Your task to perform on an android device: What's the weather like in Paris? Image 0: 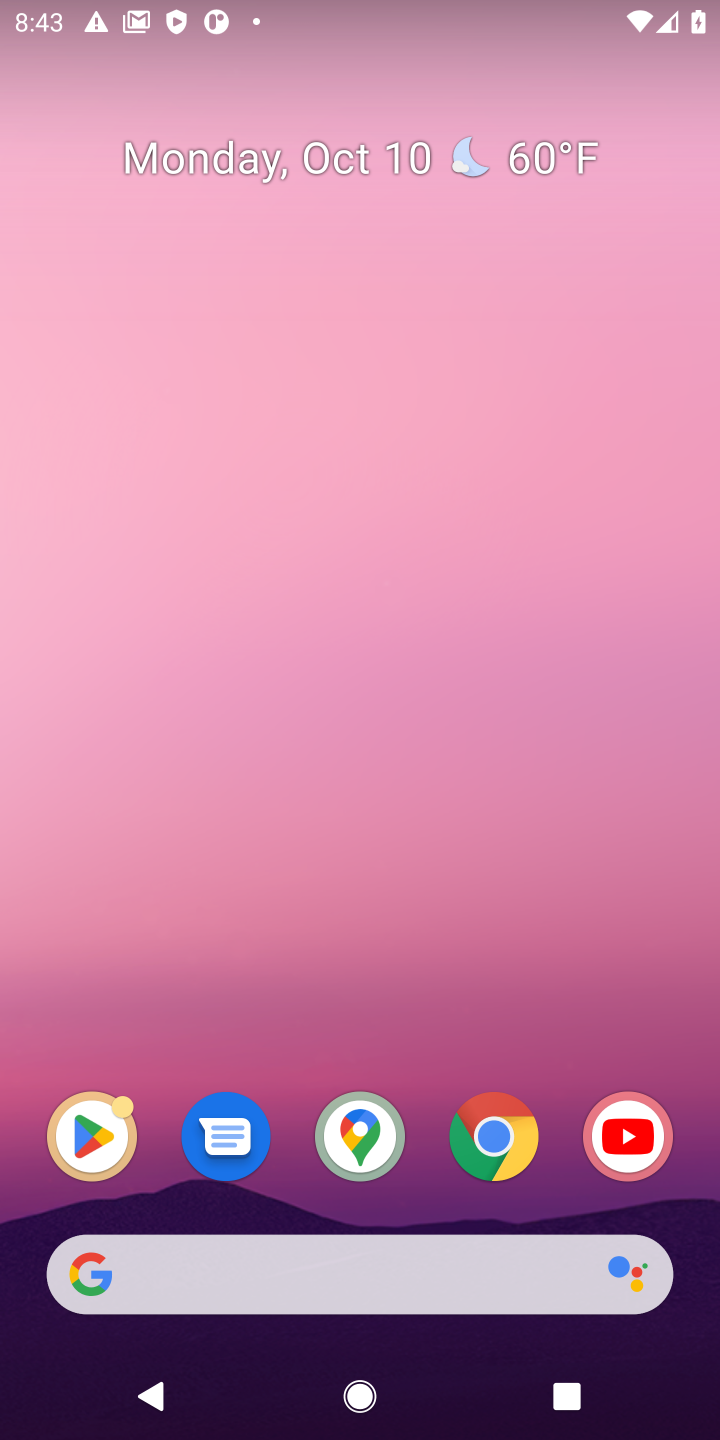
Step 0: click (449, 1273)
Your task to perform on an android device: What's the weather like in Paris? Image 1: 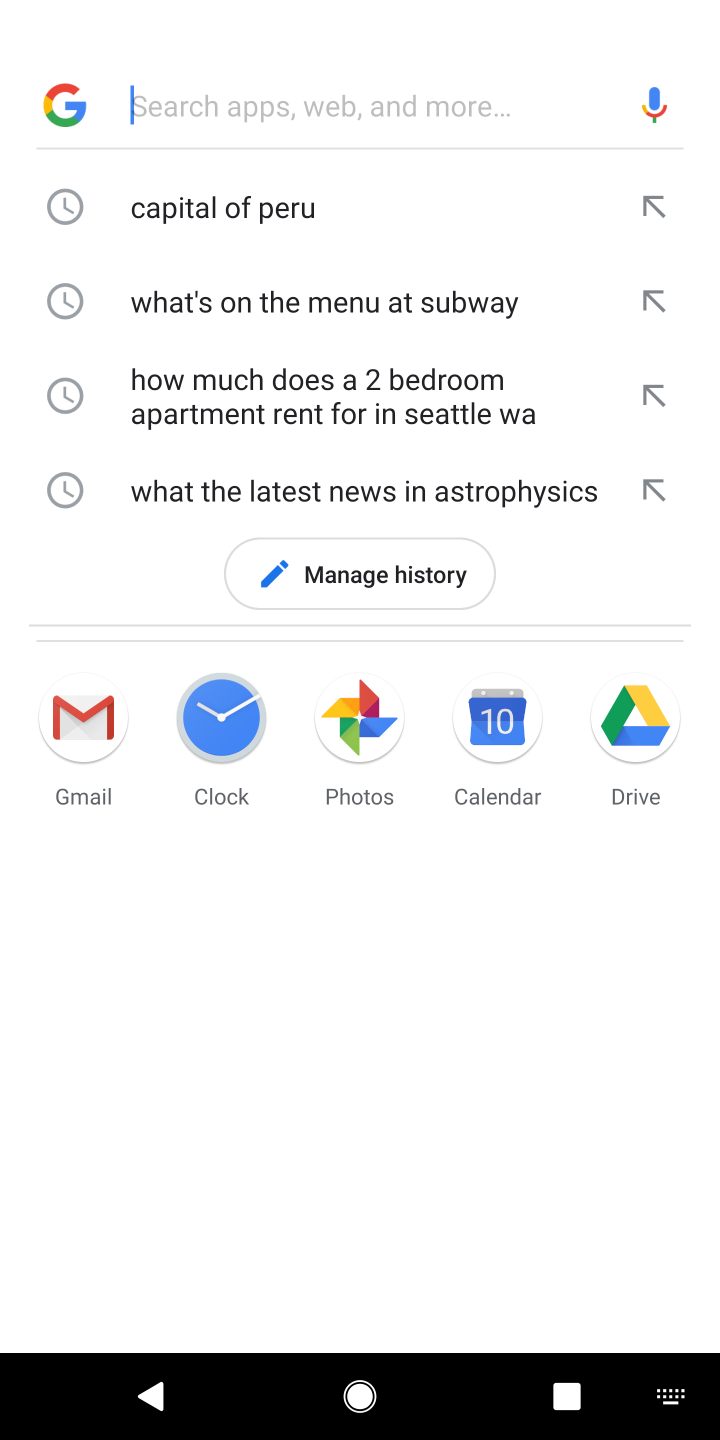
Step 1: type "What's the weather like in Paris?"
Your task to perform on an android device: What's the weather like in Paris? Image 2: 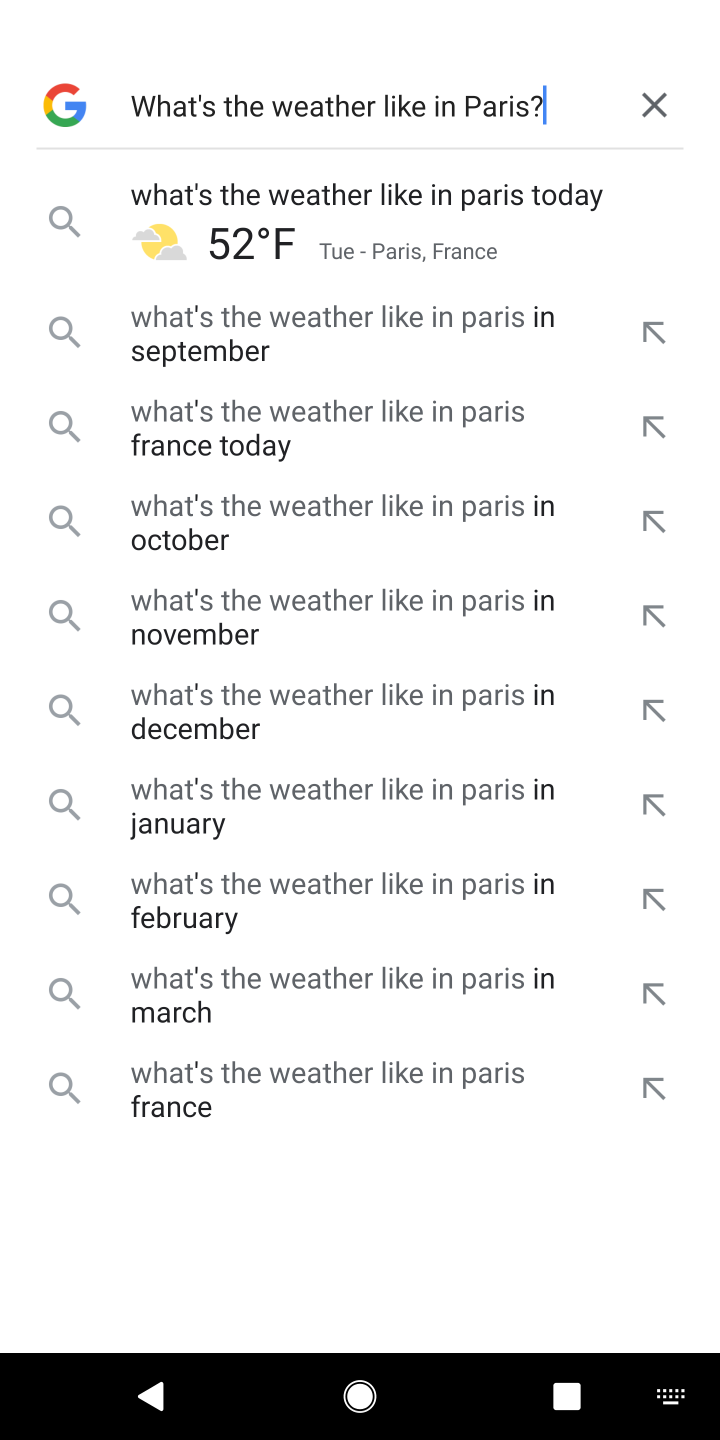
Step 2: click (348, 192)
Your task to perform on an android device: What's the weather like in Paris? Image 3: 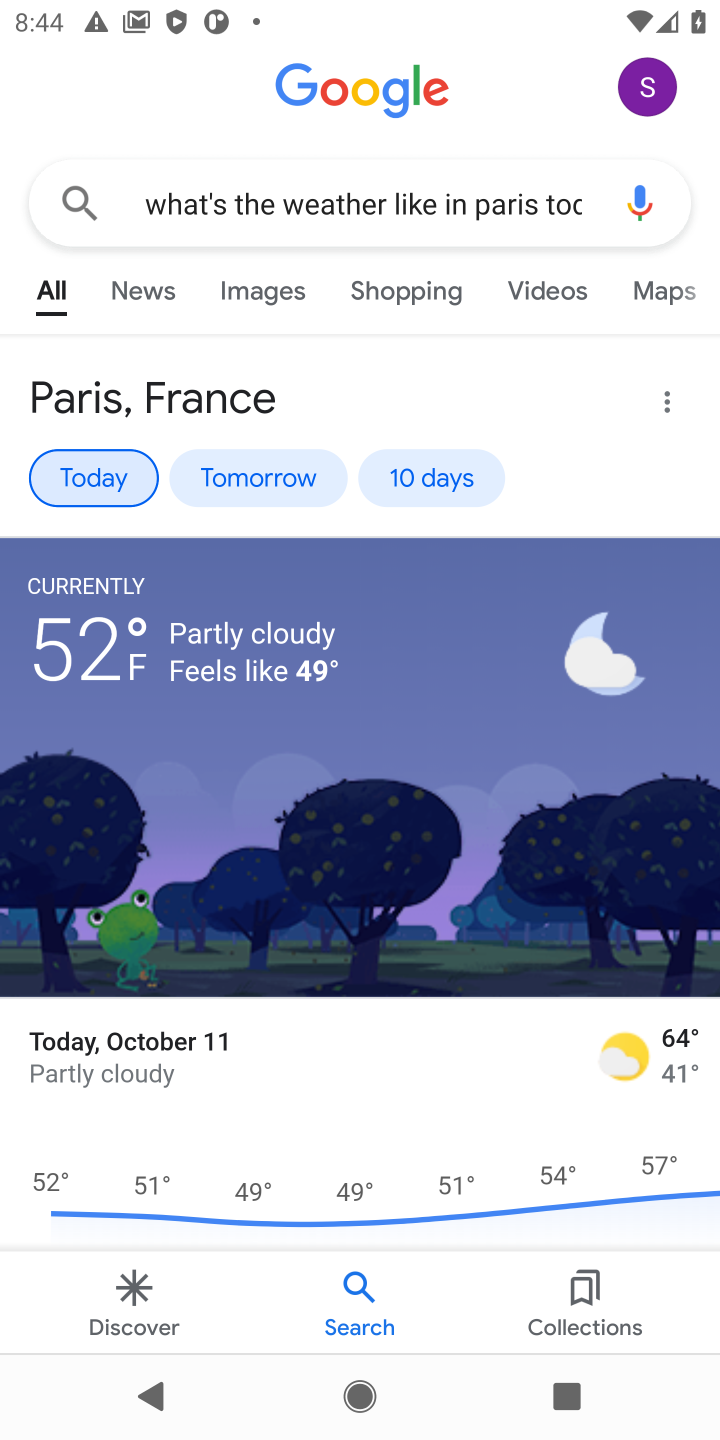
Step 3: task complete